Your task to perform on an android device: see tabs open on other devices in the chrome app Image 0: 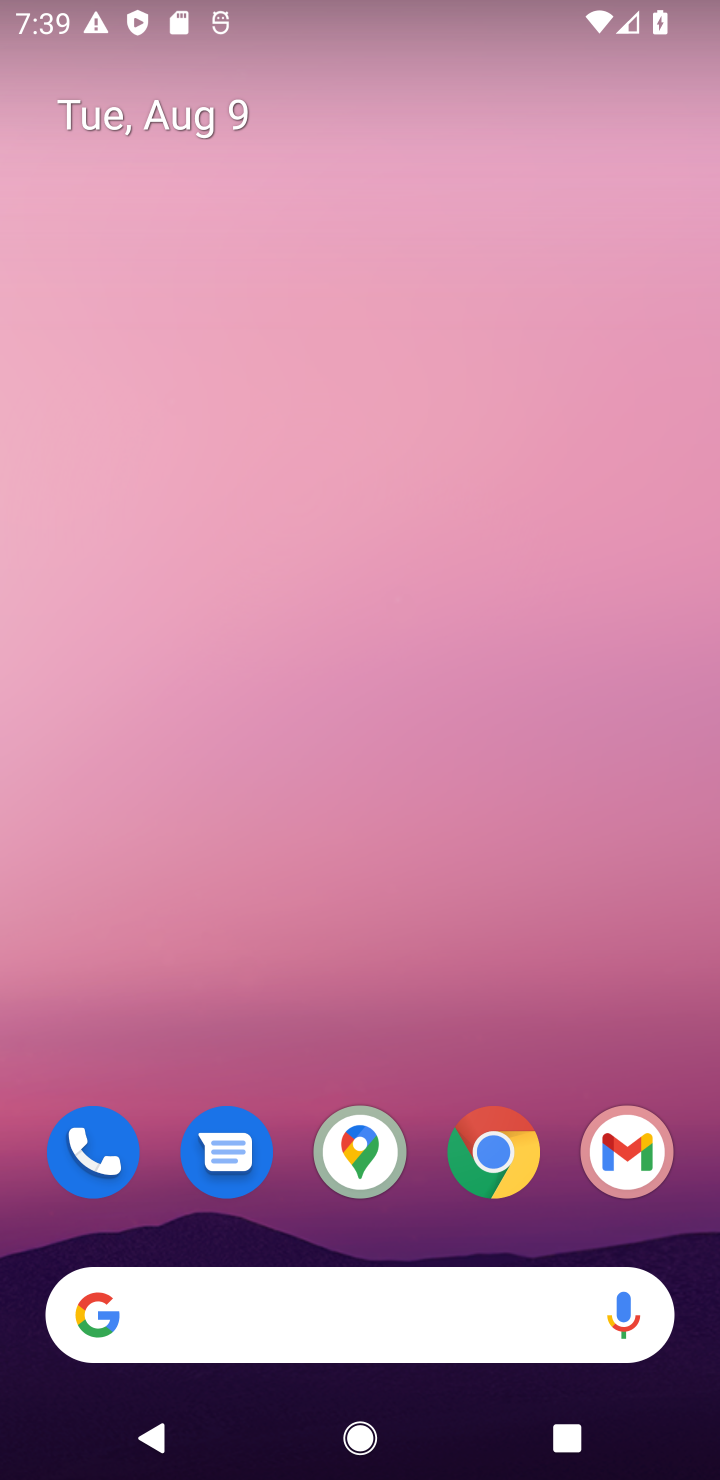
Step 0: click (502, 1166)
Your task to perform on an android device: see tabs open on other devices in the chrome app Image 1: 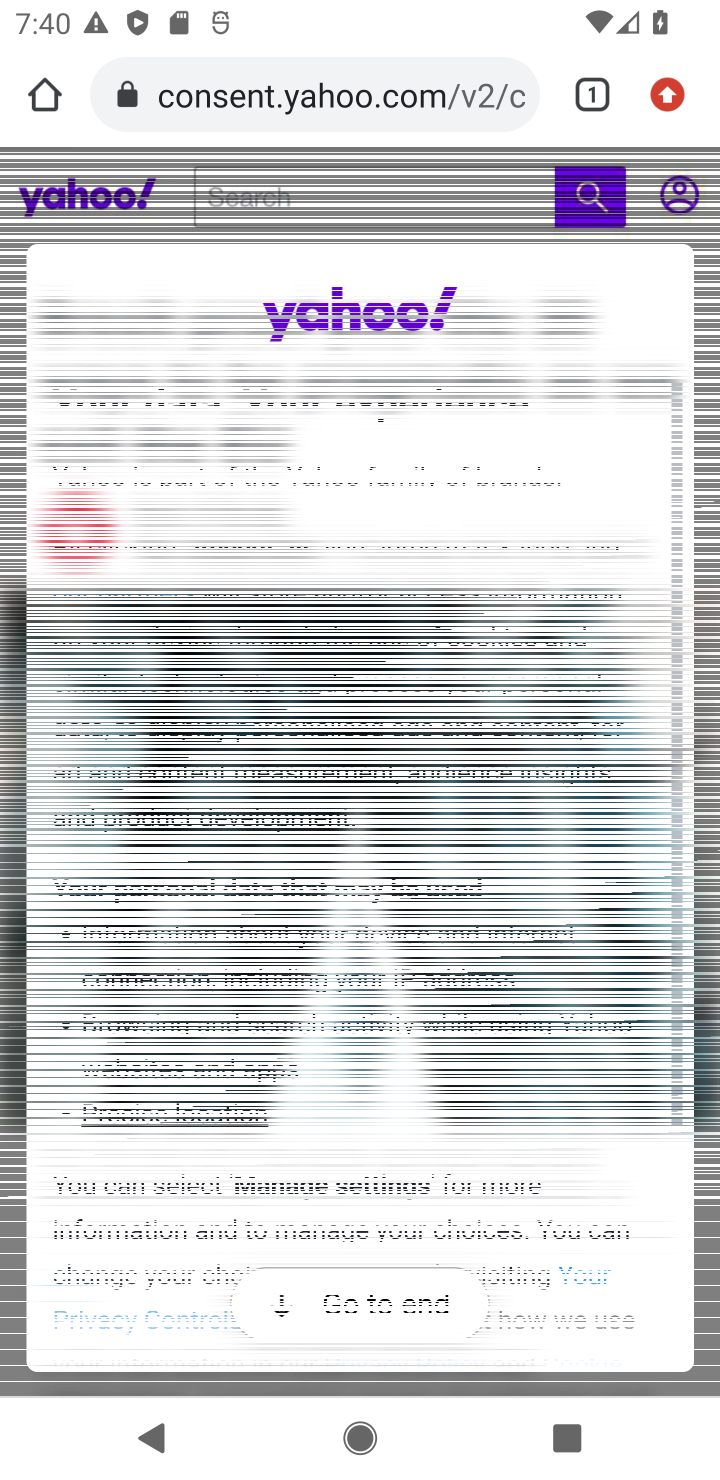
Step 1: click (647, 105)
Your task to perform on an android device: see tabs open on other devices in the chrome app Image 2: 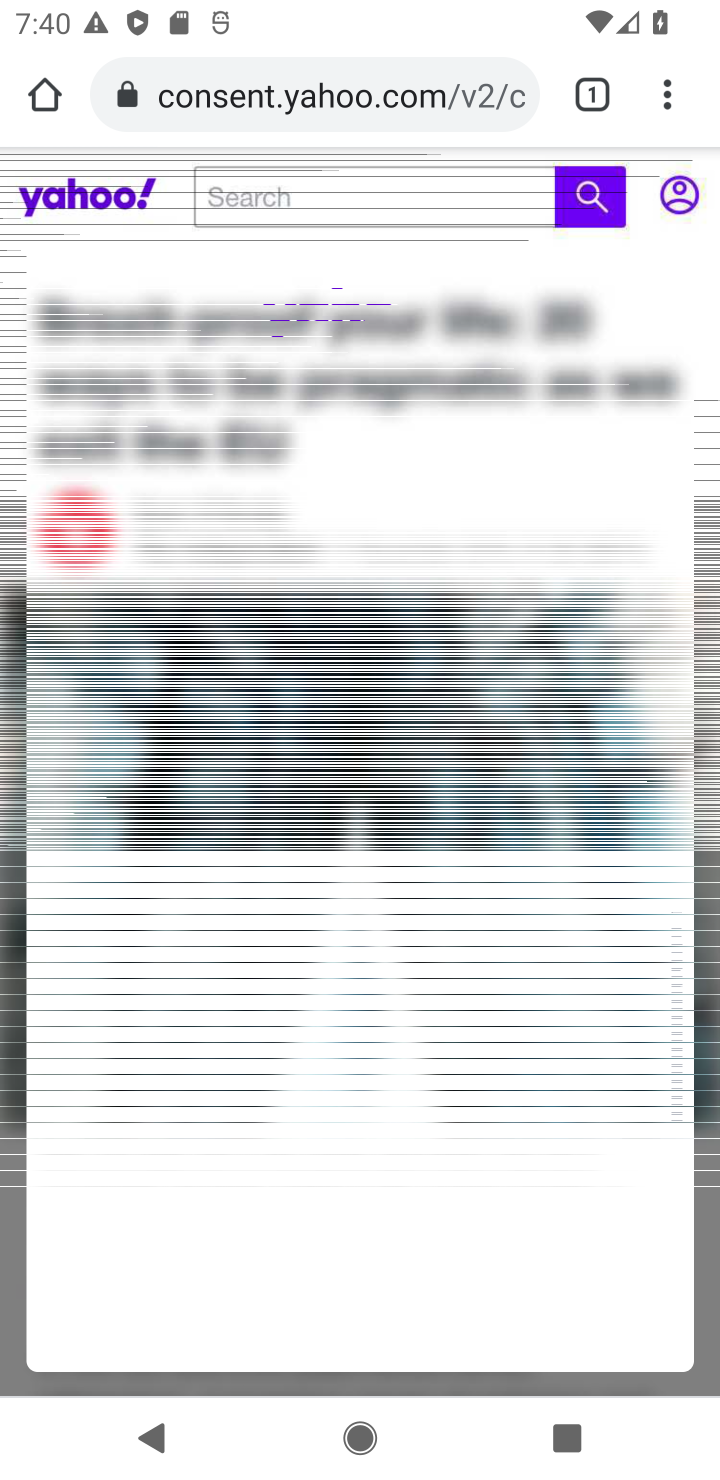
Step 2: click (685, 97)
Your task to perform on an android device: see tabs open on other devices in the chrome app Image 3: 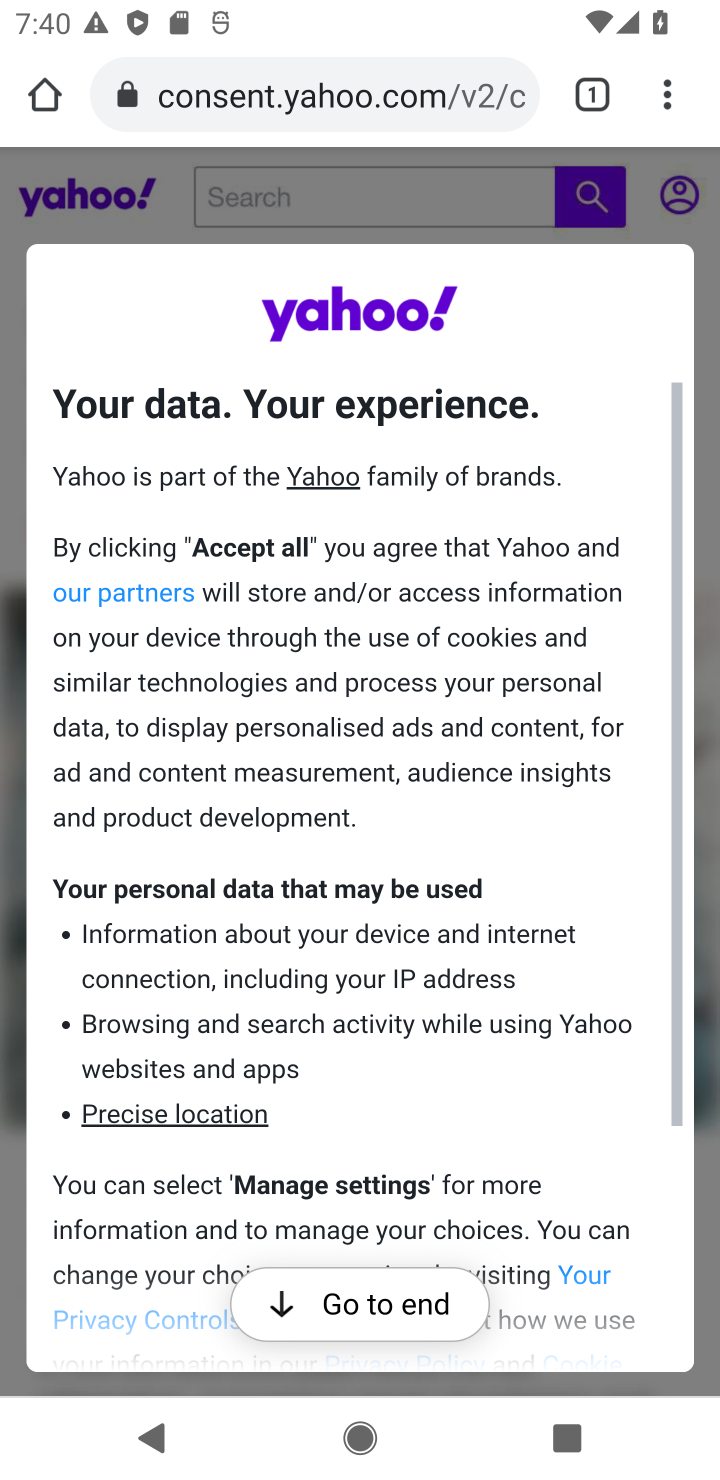
Step 3: task complete